Your task to perform on an android device: set the stopwatch Image 0: 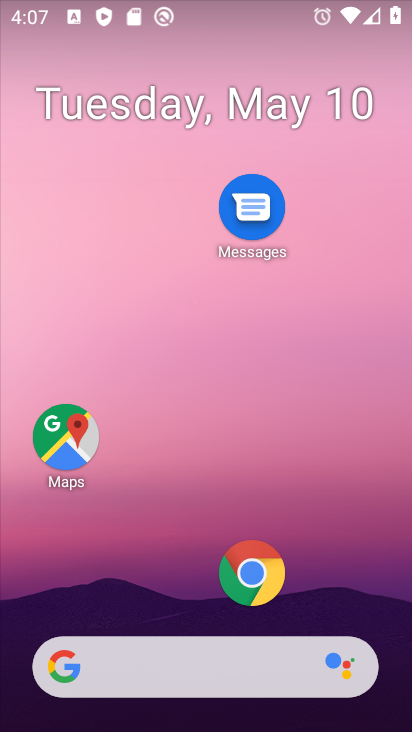
Step 0: drag from (176, 597) to (177, 195)
Your task to perform on an android device: set the stopwatch Image 1: 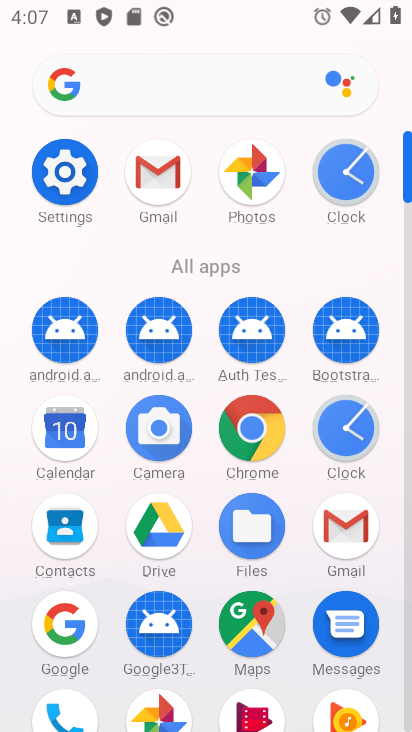
Step 1: click (345, 180)
Your task to perform on an android device: set the stopwatch Image 2: 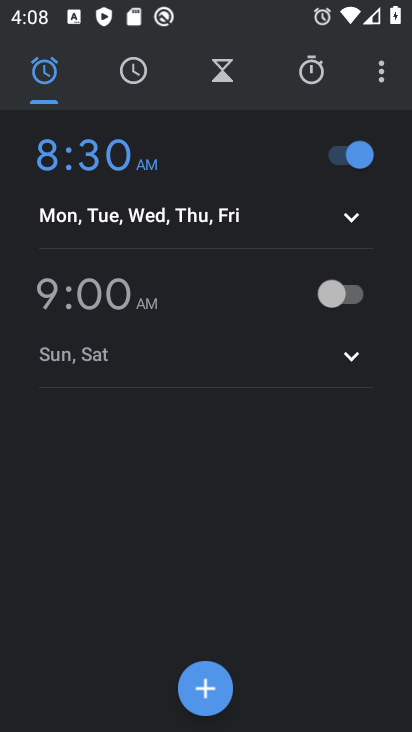
Step 2: click (322, 94)
Your task to perform on an android device: set the stopwatch Image 3: 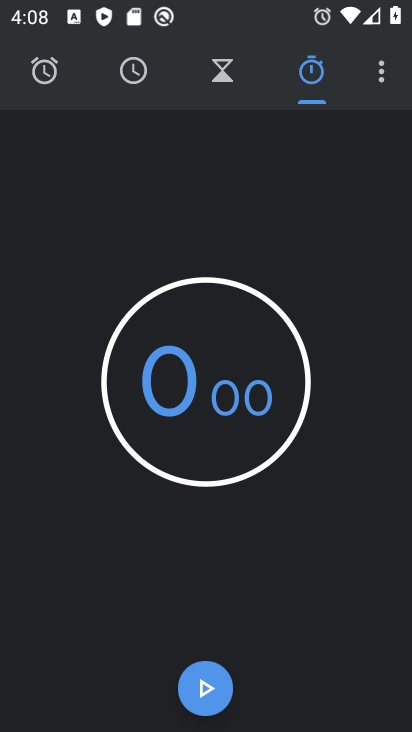
Step 3: click (209, 675)
Your task to perform on an android device: set the stopwatch Image 4: 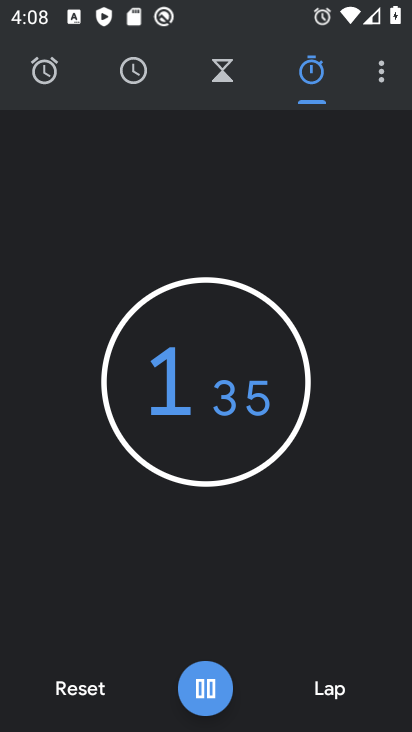
Step 4: task complete